Your task to perform on an android device: set the timer Image 0: 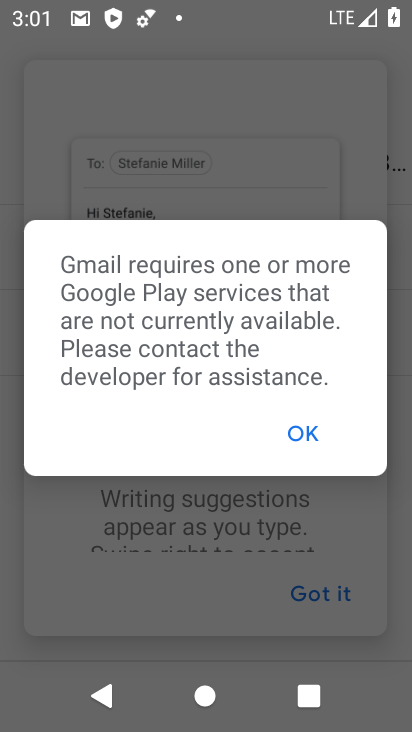
Step 0: press home button
Your task to perform on an android device: set the timer Image 1: 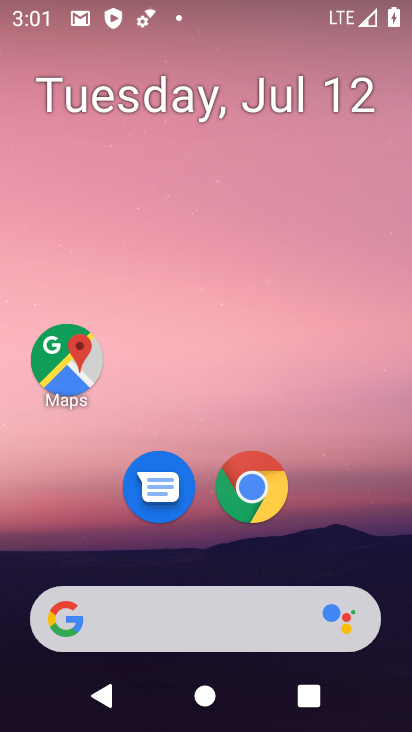
Step 1: drag from (203, 594) to (370, 89)
Your task to perform on an android device: set the timer Image 2: 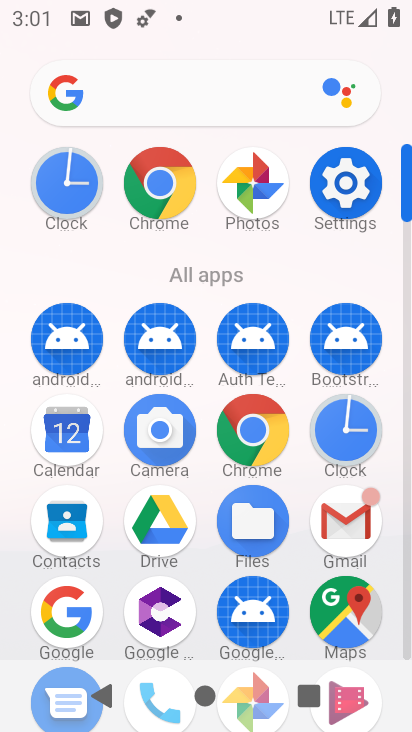
Step 2: click (340, 447)
Your task to perform on an android device: set the timer Image 3: 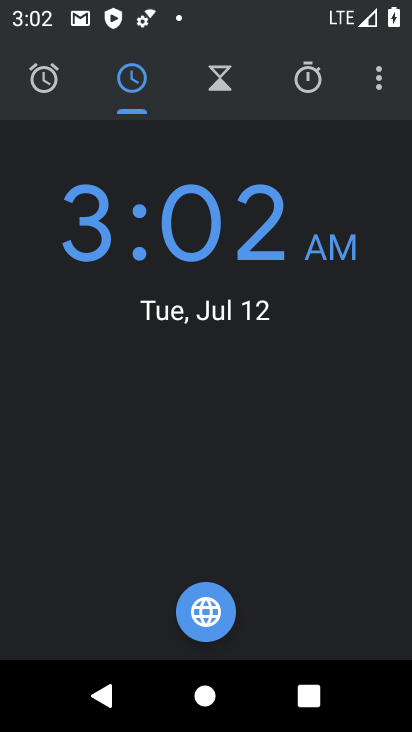
Step 3: click (209, 86)
Your task to perform on an android device: set the timer Image 4: 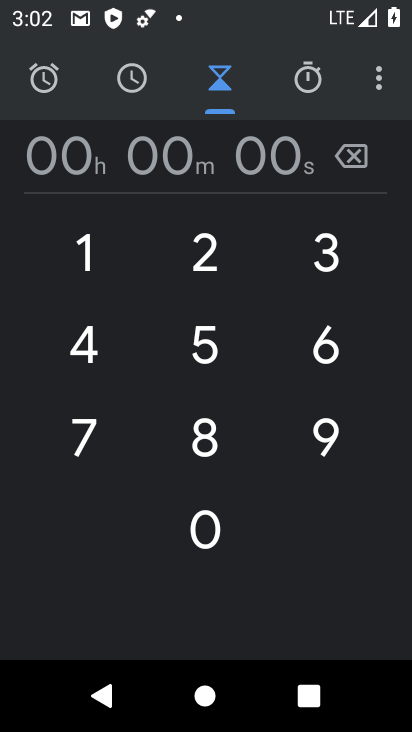
Step 4: click (203, 253)
Your task to perform on an android device: set the timer Image 5: 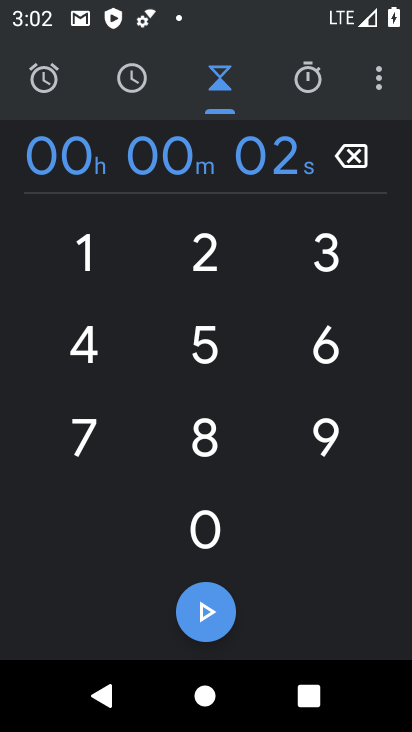
Step 5: click (208, 625)
Your task to perform on an android device: set the timer Image 6: 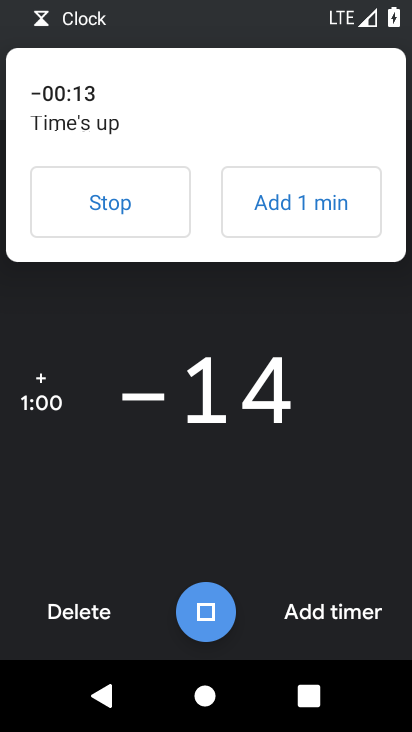
Step 6: click (102, 204)
Your task to perform on an android device: set the timer Image 7: 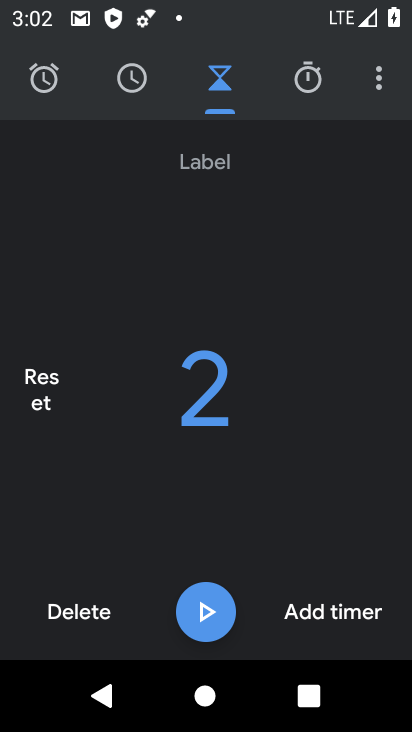
Step 7: task complete